Your task to perform on an android device: open sync settings in chrome Image 0: 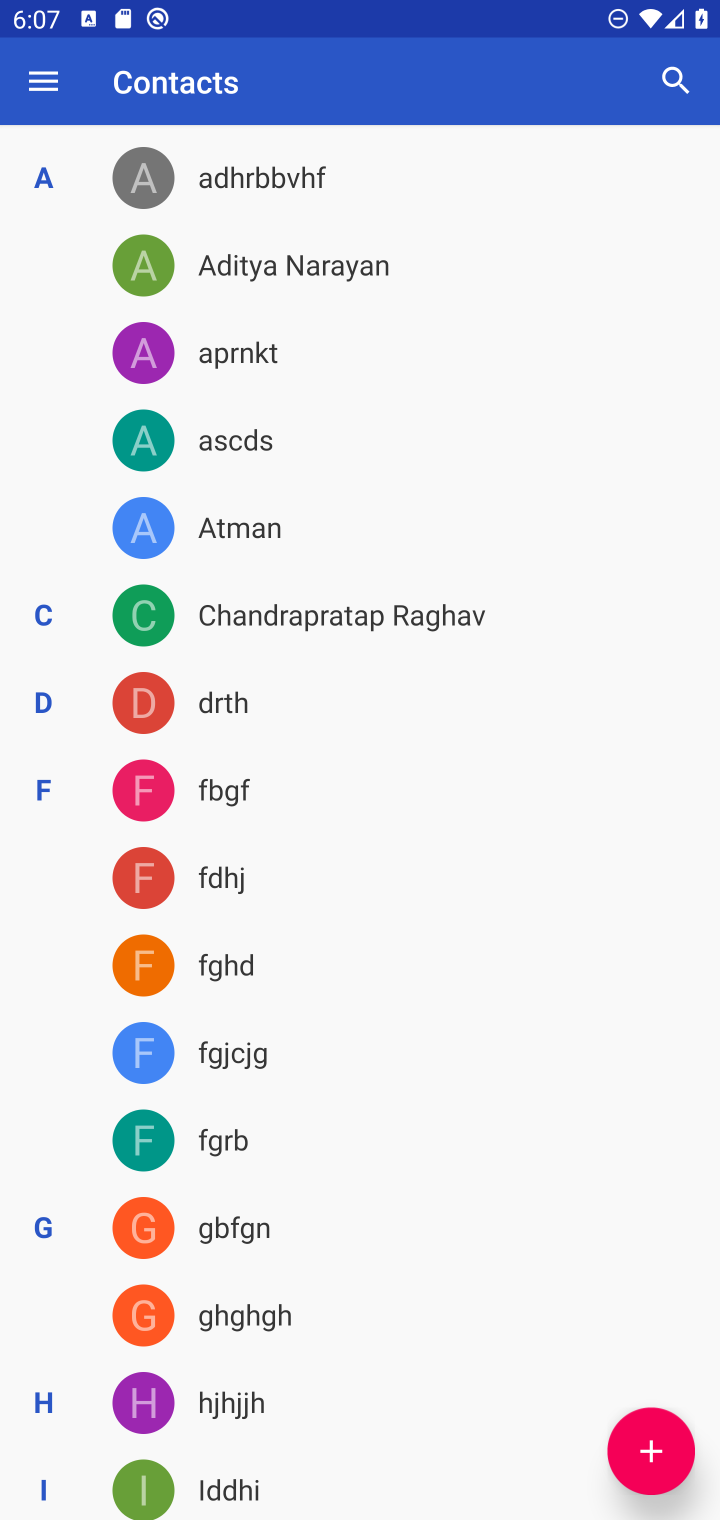
Step 0: press home button
Your task to perform on an android device: open sync settings in chrome Image 1: 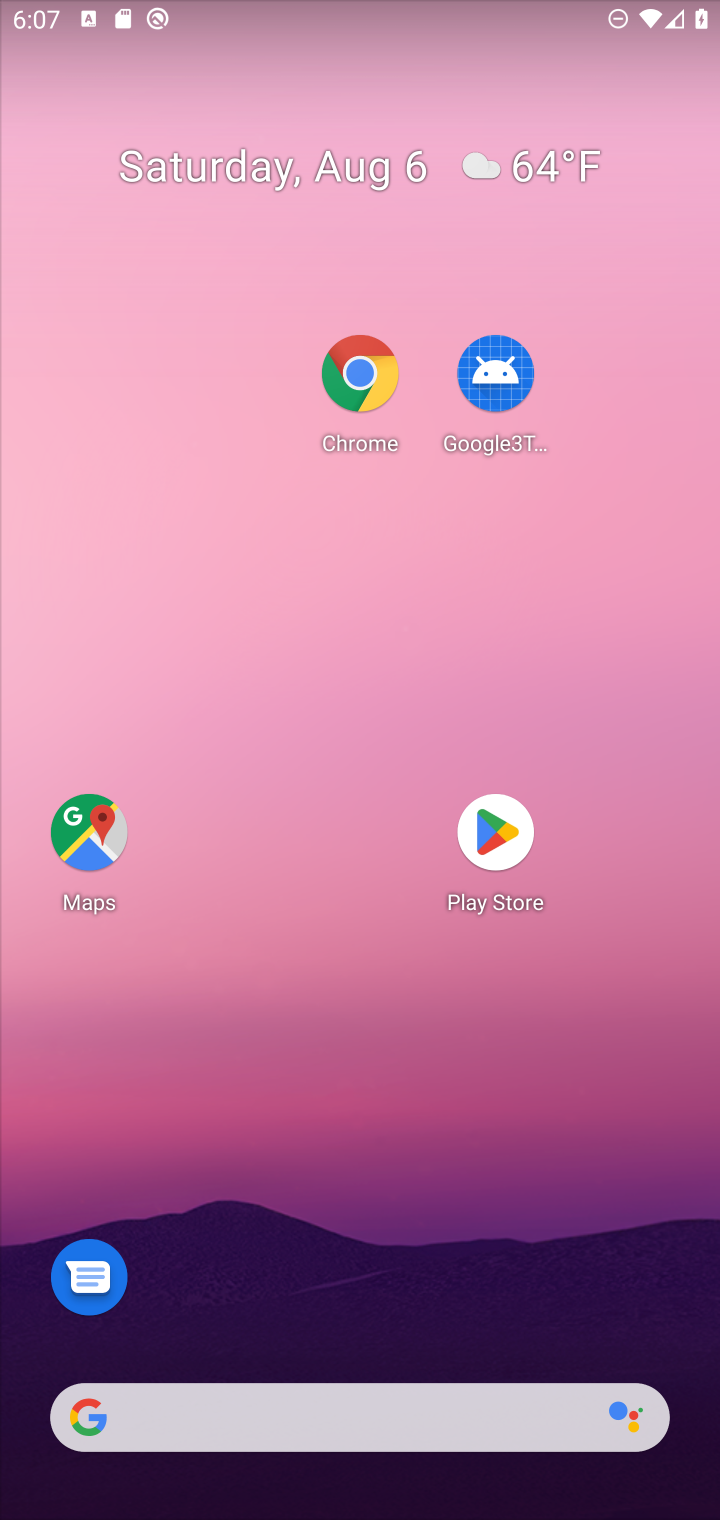
Step 1: drag from (365, 1435) to (31, 118)
Your task to perform on an android device: open sync settings in chrome Image 2: 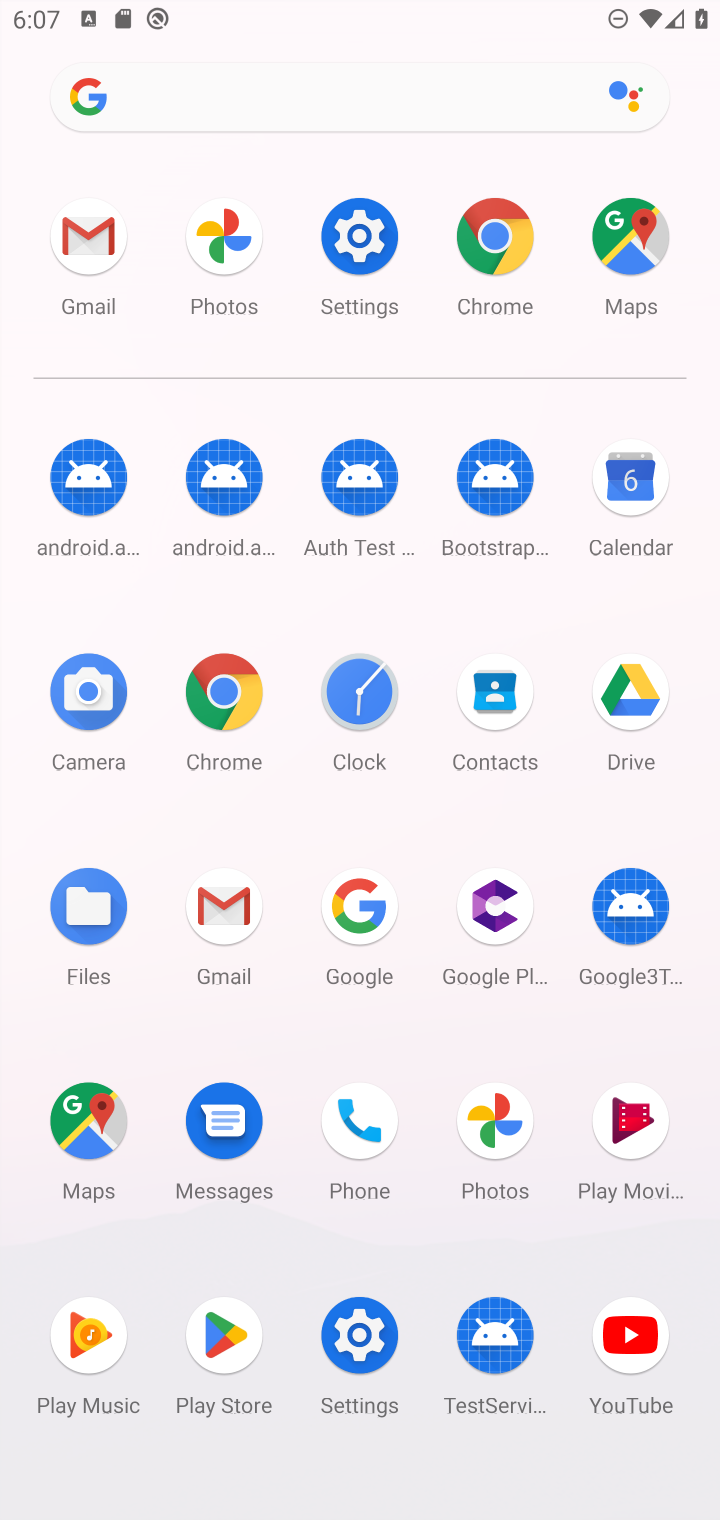
Step 2: click (228, 793)
Your task to perform on an android device: open sync settings in chrome Image 3: 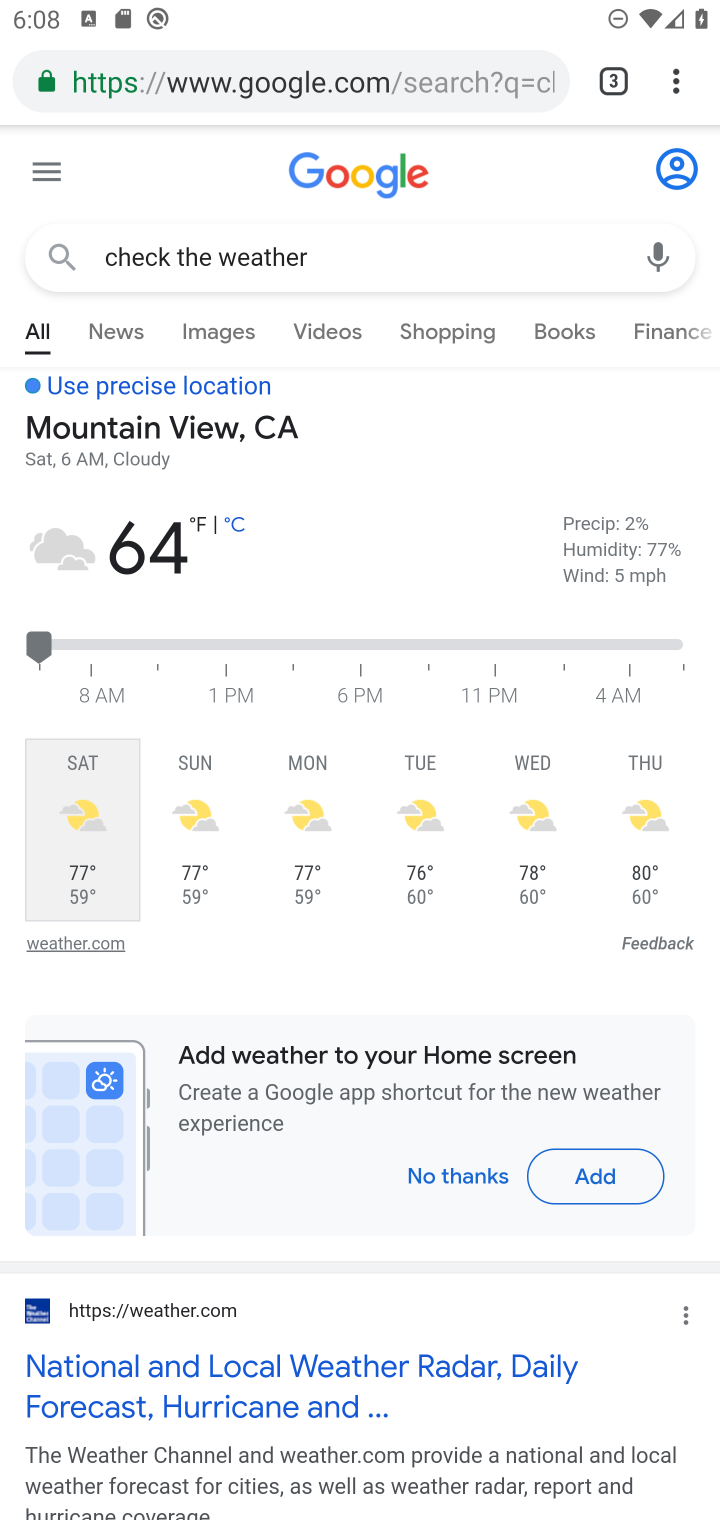
Step 3: click (674, 66)
Your task to perform on an android device: open sync settings in chrome Image 4: 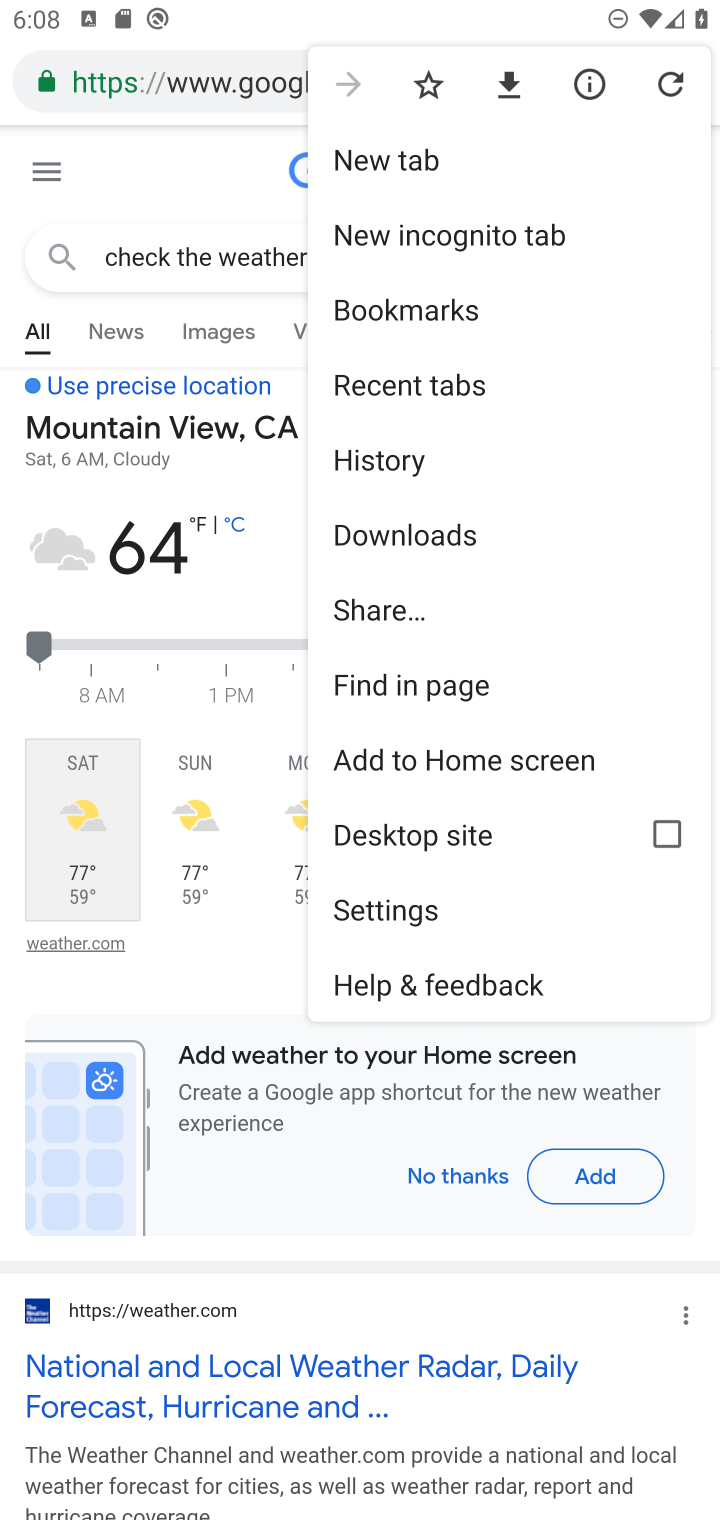
Step 4: click (426, 914)
Your task to perform on an android device: open sync settings in chrome Image 5: 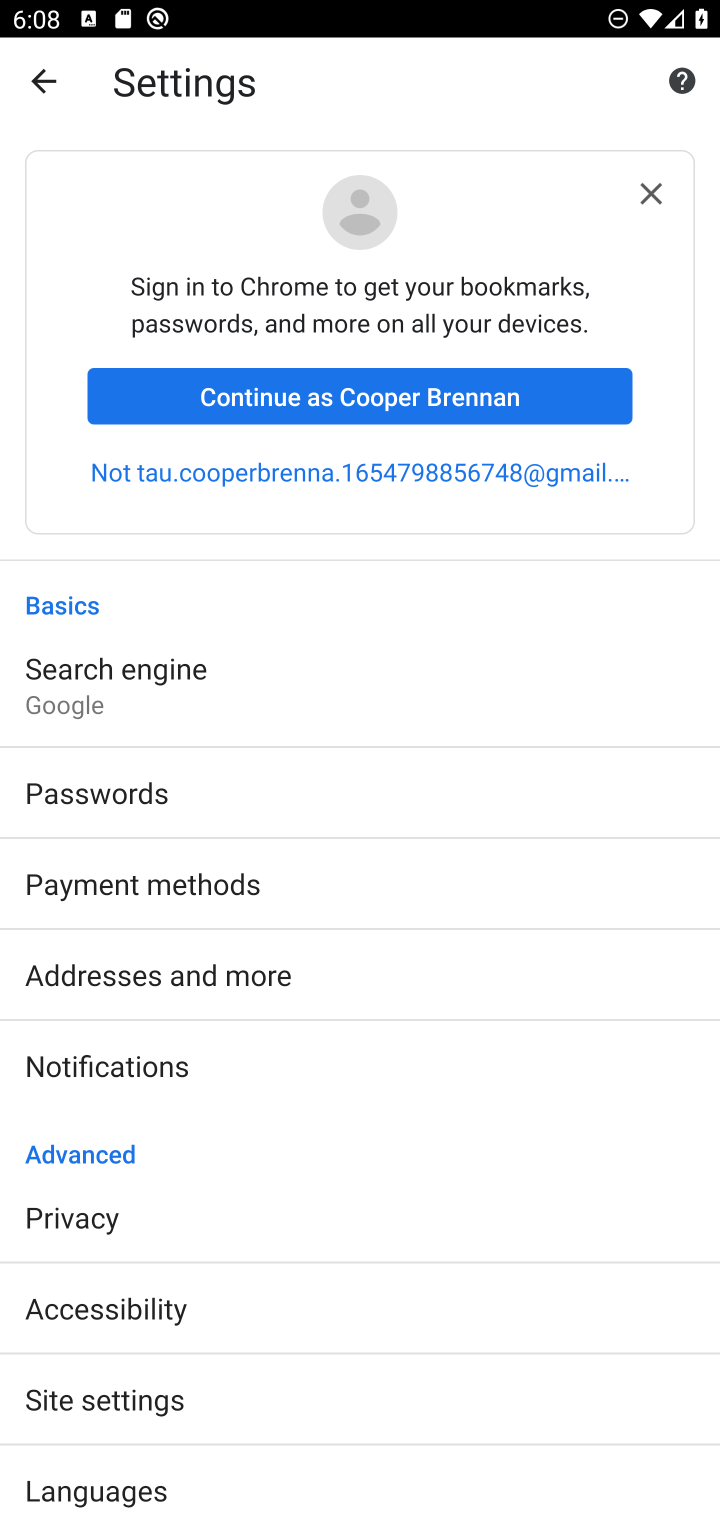
Step 5: click (164, 1387)
Your task to perform on an android device: open sync settings in chrome Image 6: 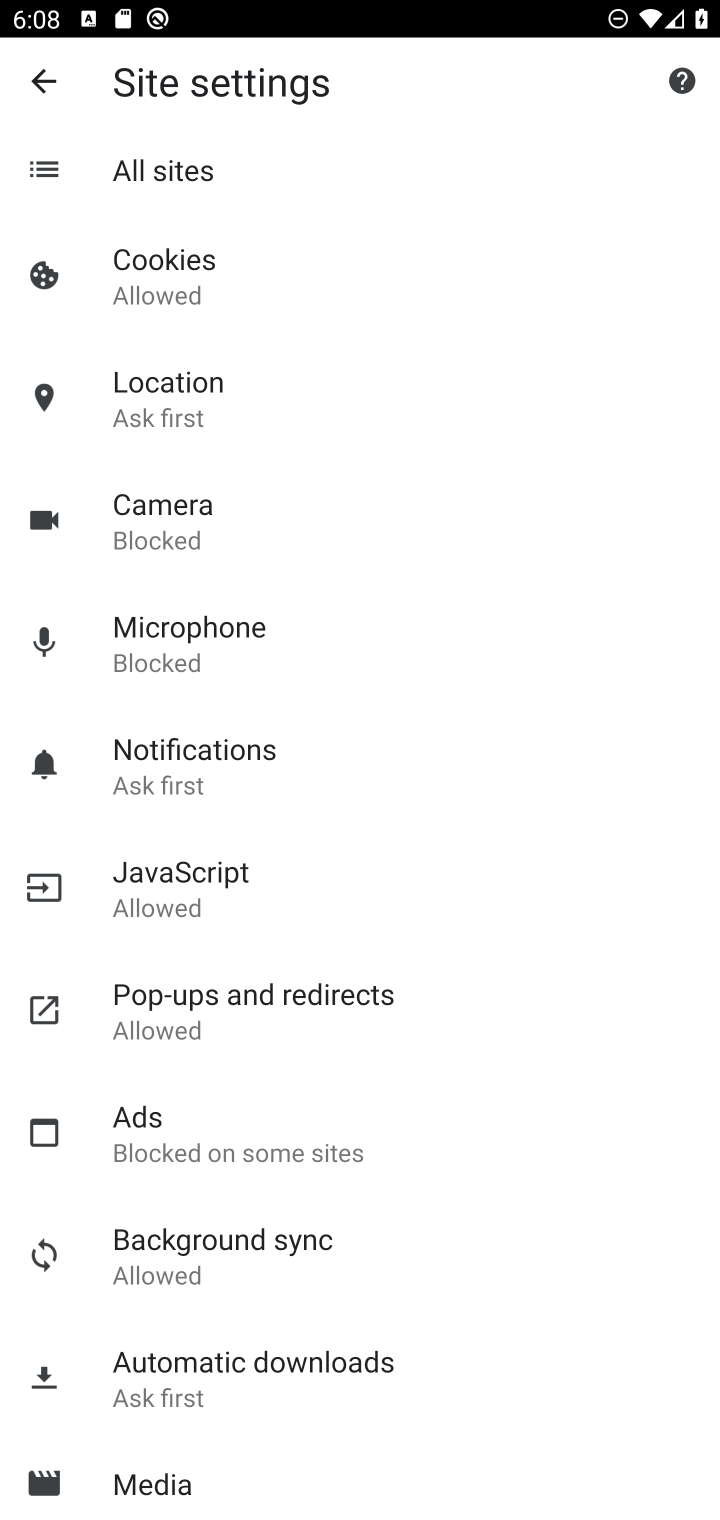
Step 6: click (269, 1261)
Your task to perform on an android device: open sync settings in chrome Image 7: 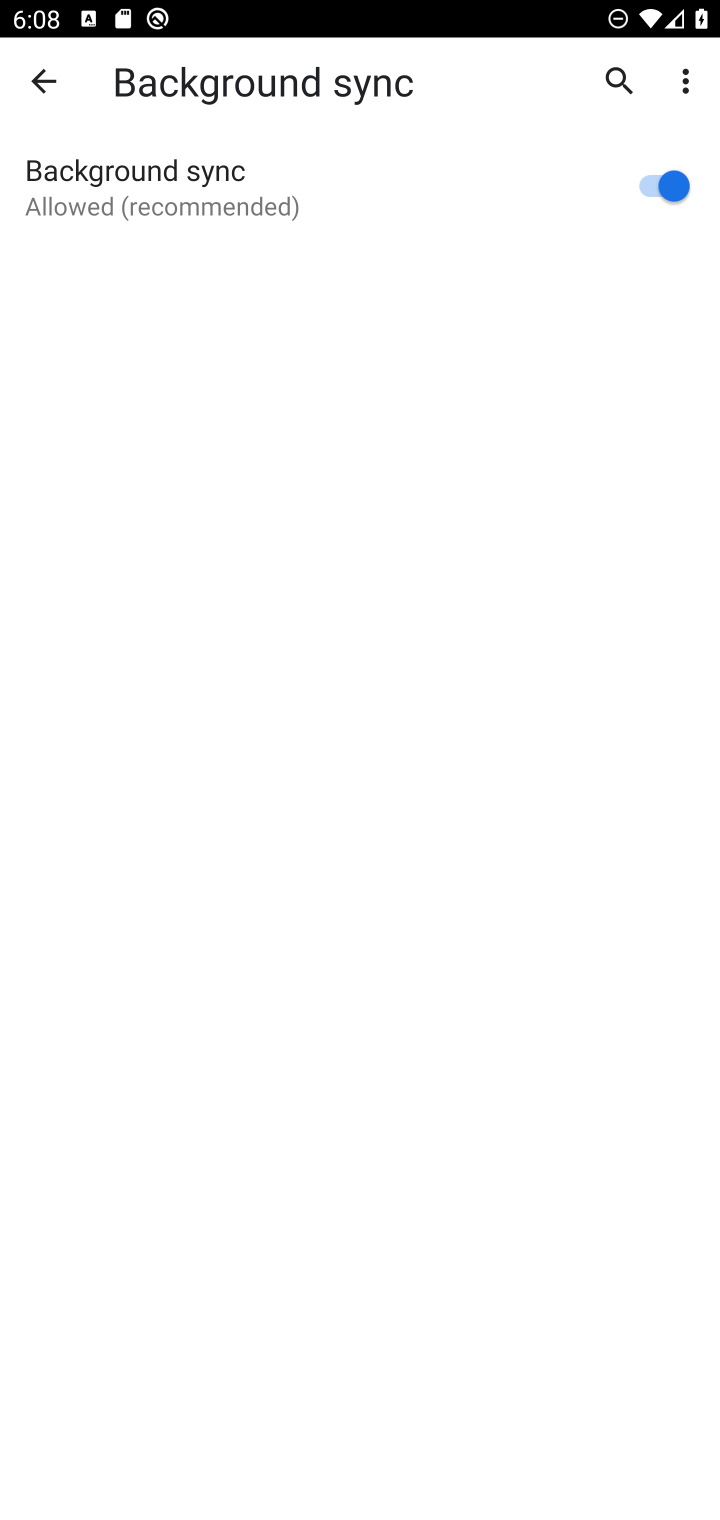
Step 7: task complete